Your task to perform on an android device: delete a single message in the gmail app Image 0: 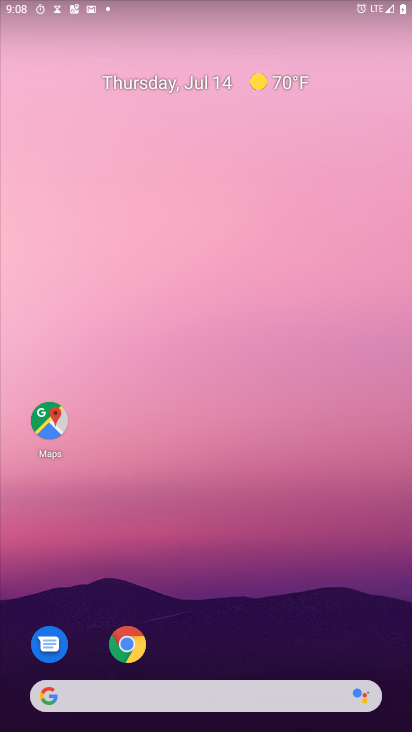
Step 0: drag from (158, 694) to (346, 47)
Your task to perform on an android device: delete a single message in the gmail app Image 1: 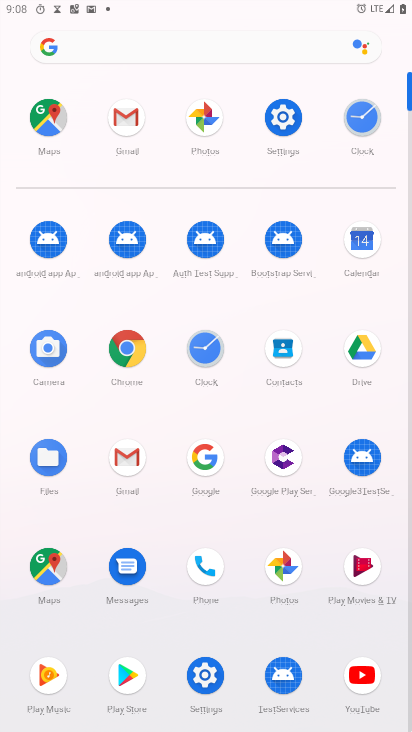
Step 1: click (127, 114)
Your task to perform on an android device: delete a single message in the gmail app Image 2: 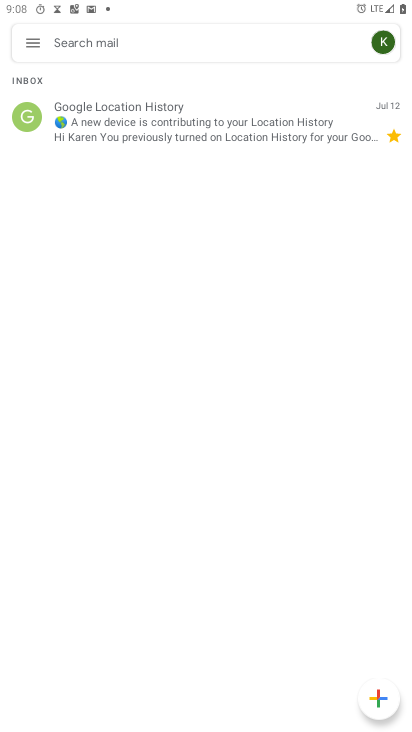
Step 2: click (30, 118)
Your task to perform on an android device: delete a single message in the gmail app Image 3: 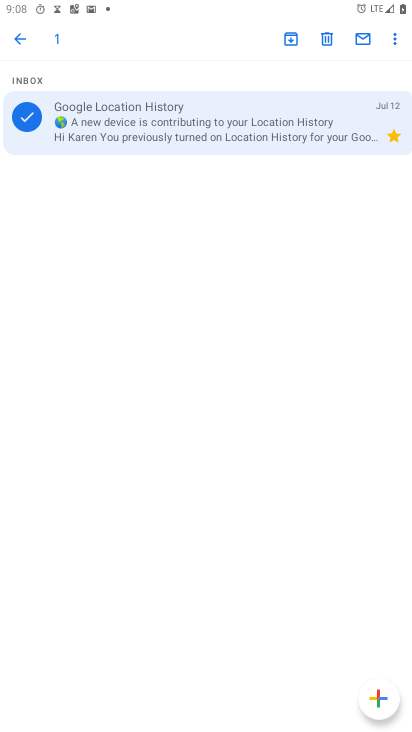
Step 3: click (323, 36)
Your task to perform on an android device: delete a single message in the gmail app Image 4: 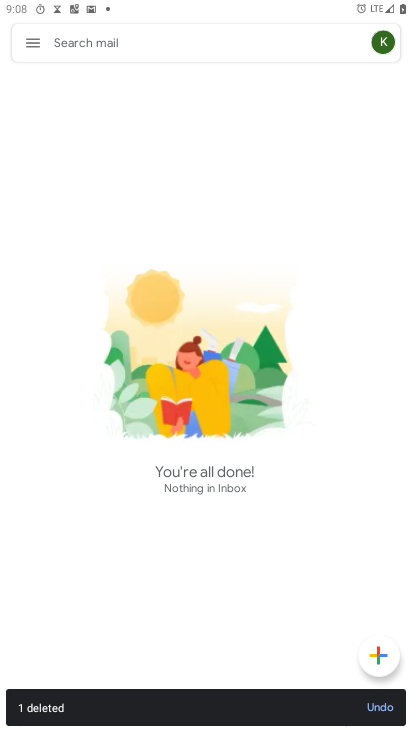
Step 4: task complete